Your task to perform on an android device: set an alarm Image 0: 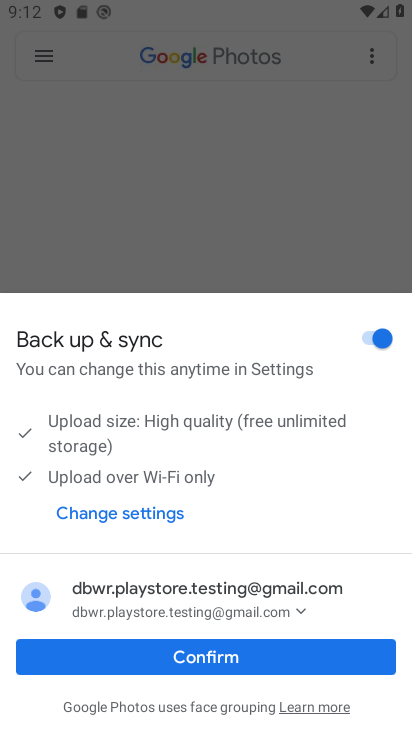
Step 0: press home button
Your task to perform on an android device: set an alarm Image 1: 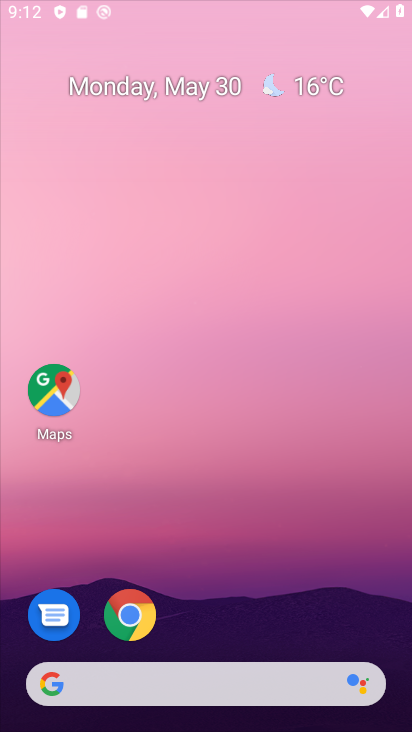
Step 1: drag from (207, 557) to (277, 16)
Your task to perform on an android device: set an alarm Image 2: 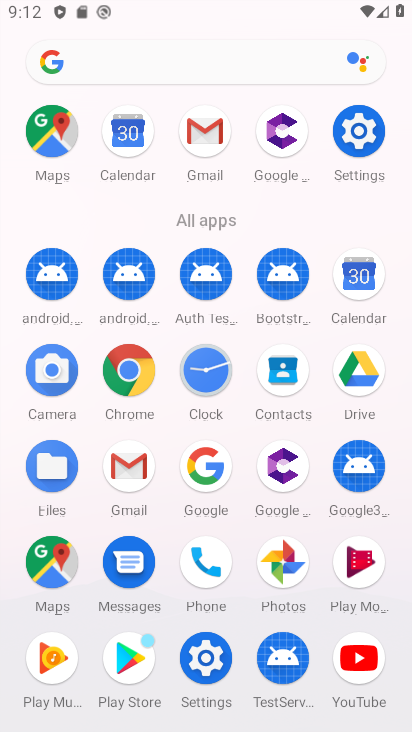
Step 2: click (209, 366)
Your task to perform on an android device: set an alarm Image 3: 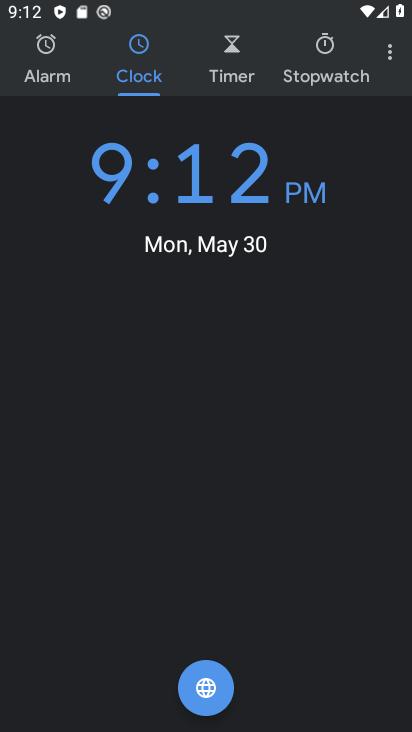
Step 3: click (31, 65)
Your task to perform on an android device: set an alarm Image 4: 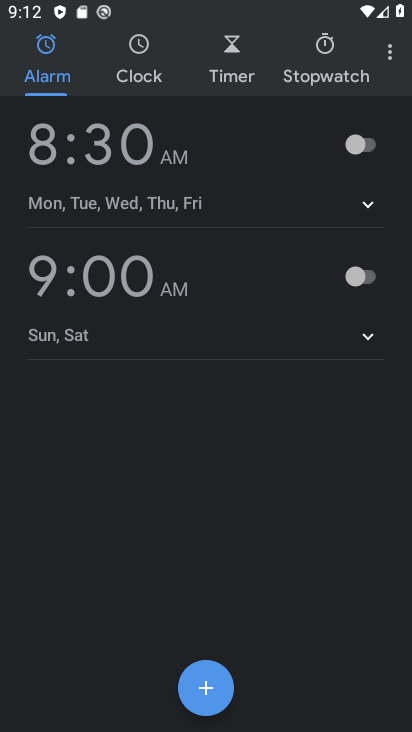
Step 4: click (362, 146)
Your task to perform on an android device: set an alarm Image 5: 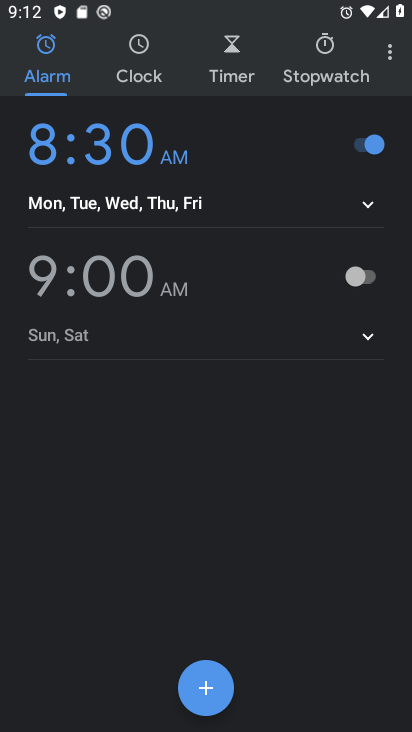
Step 5: task complete